Your task to perform on an android device: Open Reddit.com Image 0: 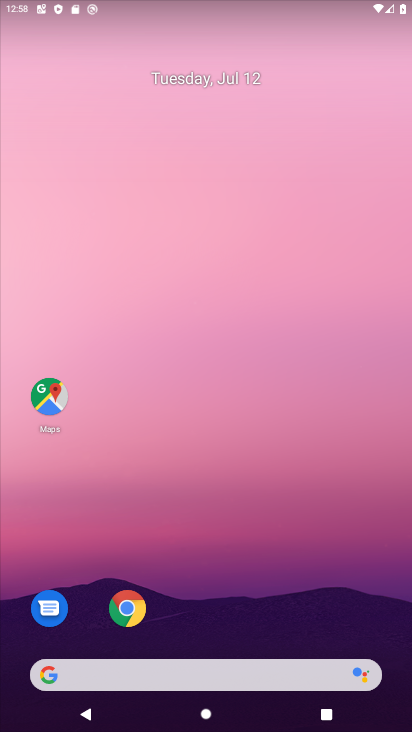
Step 0: click (128, 598)
Your task to perform on an android device: Open Reddit.com Image 1: 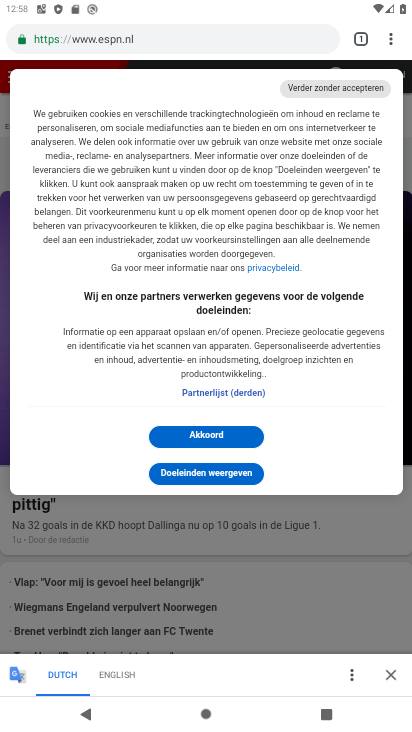
Step 1: click (393, 45)
Your task to perform on an android device: Open Reddit.com Image 2: 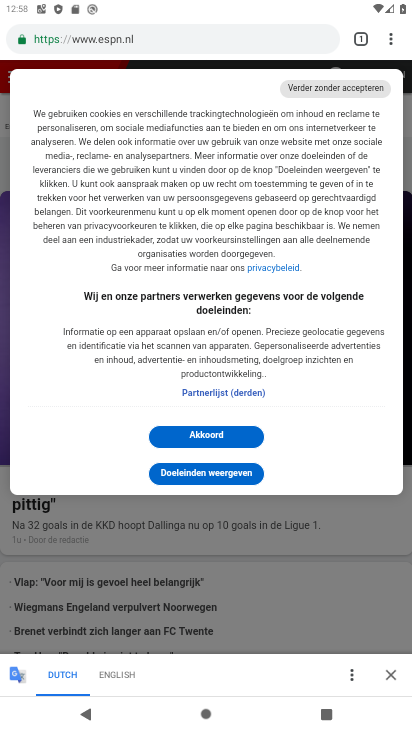
Step 2: click (396, 40)
Your task to perform on an android device: Open Reddit.com Image 3: 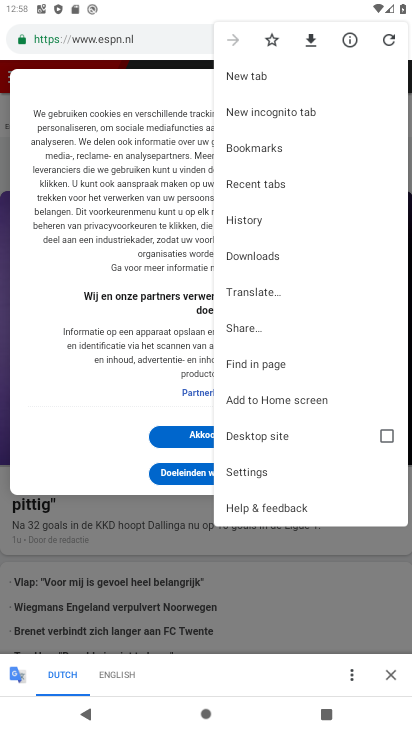
Step 3: click (282, 74)
Your task to perform on an android device: Open Reddit.com Image 4: 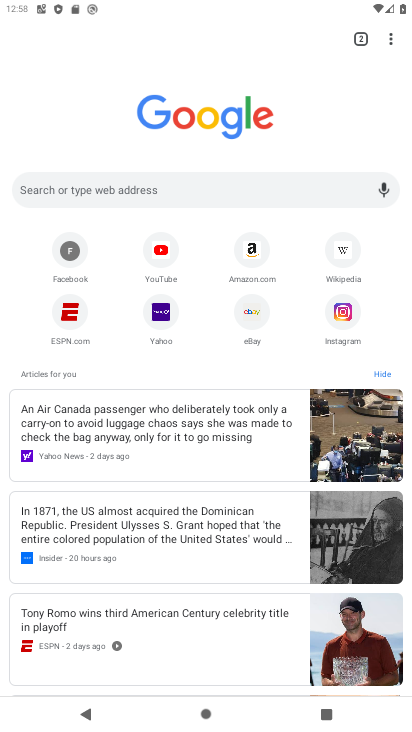
Step 4: click (145, 180)
Your task to perform on an android device: Open Reddit.com Image 5: 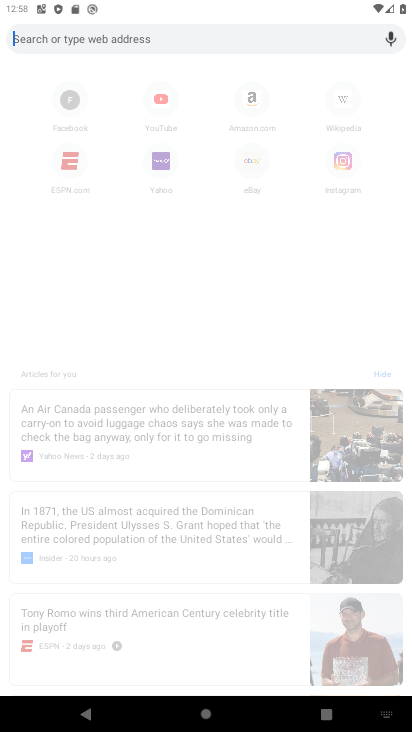
Step 5: type " Reddit.com "
Your task to perform on an android device: Open Reddit.com Image 6: 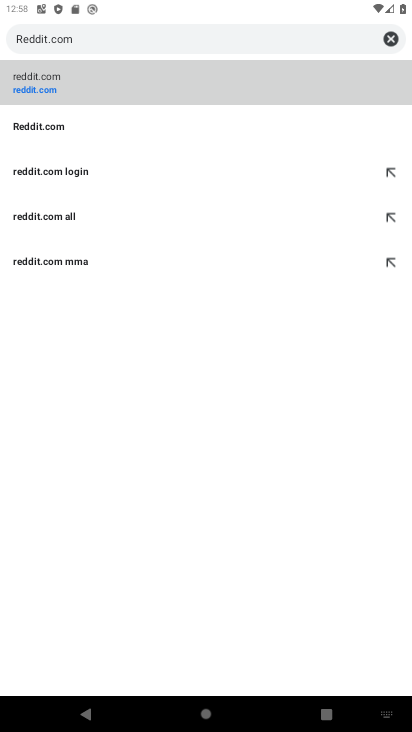
Step 6: click (268, 89)
Your task to perform on an android device: Open Reddit.com Image 7: 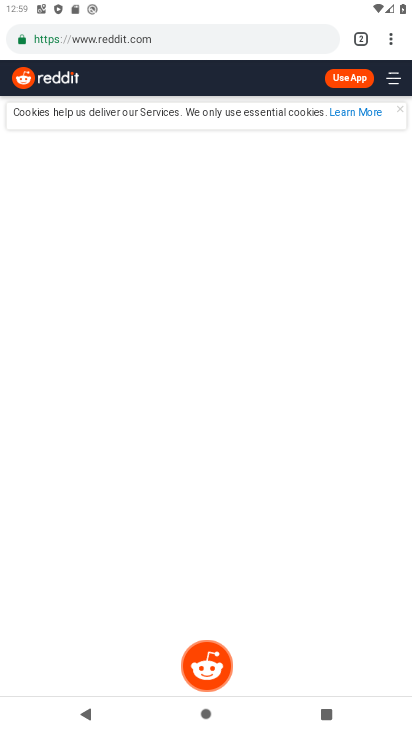
Step 7: task complete